Your task to perform on an android device: change the upload size in google photos Image 0: 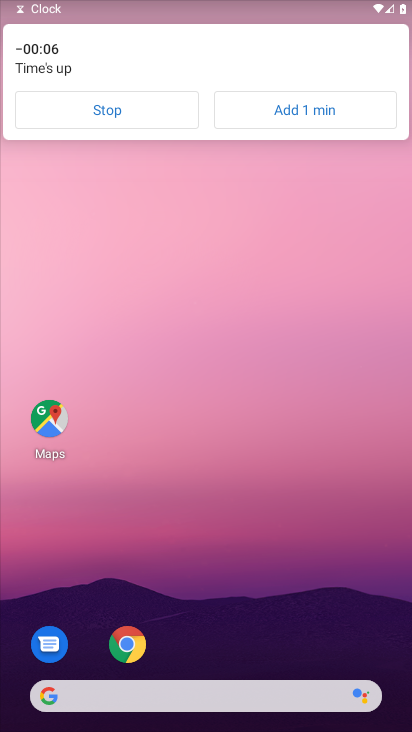
Step 0: click (161, 120)
Your task to perform on an android device: change the upload size in google photos Image 1: 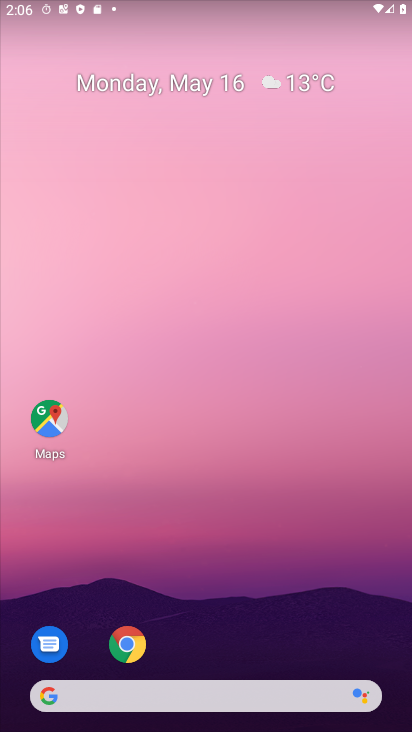
Step 1: drag from (226, 683) to (296, 47)
Your task to perform on an android device: change the upload size in google photos Image 2: 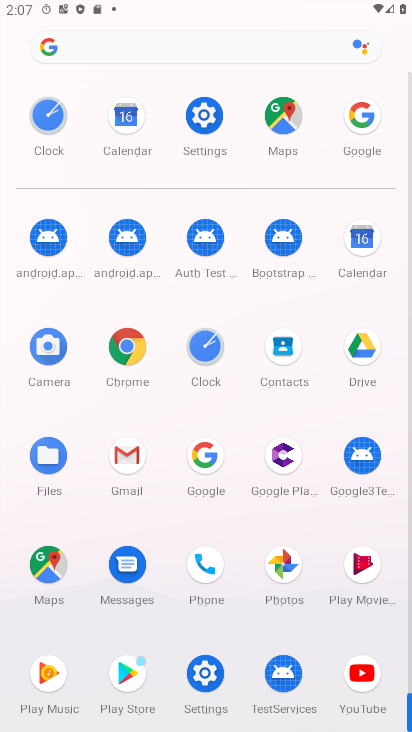
Step 2: click (282, 577)
Your task to perform on an android device: change the upload size in google photos Image 3: 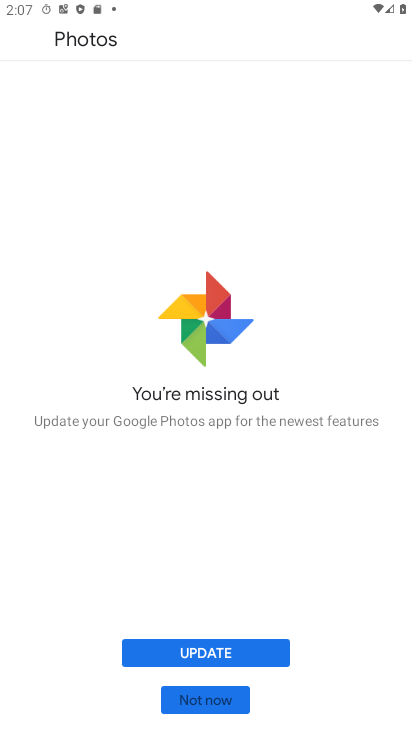
Step 3: task complete